Your task to perform on an android device: Open wifi settings Image 0: 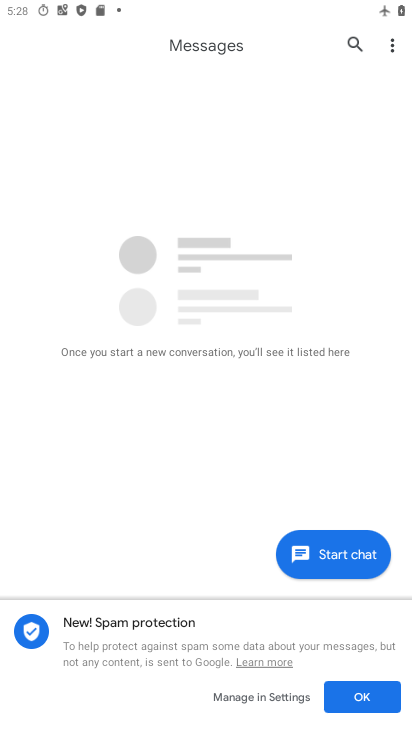
Step 0: press home button
Your task to perform on an android device: Open wifi settings Image 1: 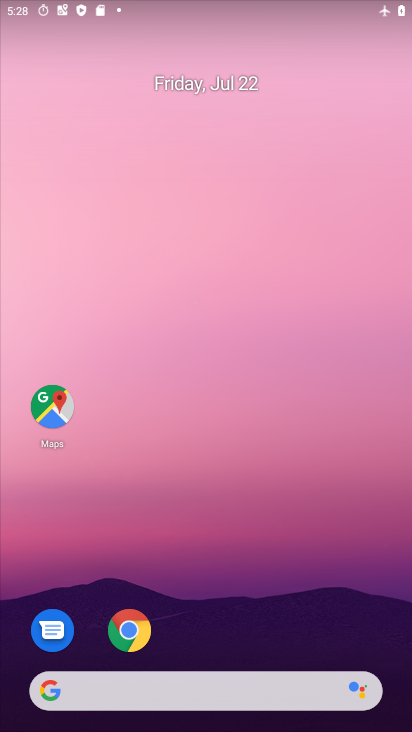
Step 1: drag from (110, 696) to (150, 28)
Your task to perform on an android device: Open wifi settings Image 2: 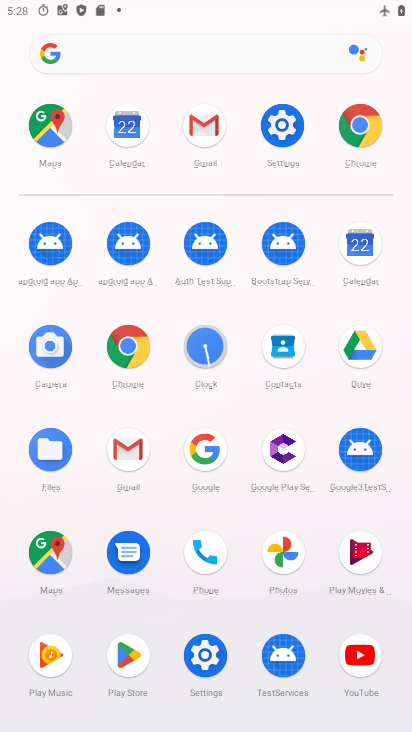
Step 2: click (274, 129)
Your task to perform on an android device: Open wifi settings Image 3: 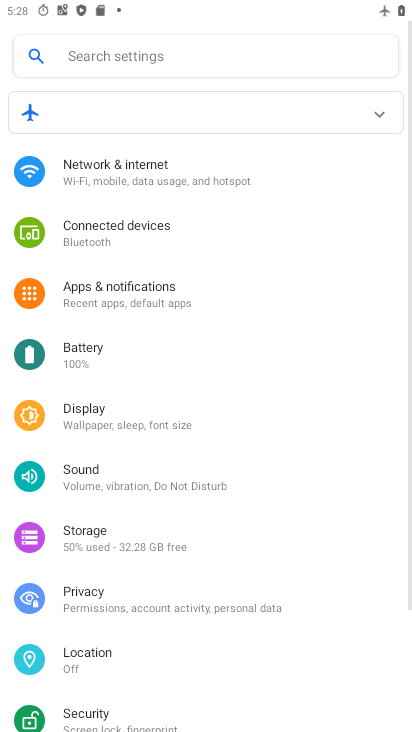
Step 3: click (136, 175)
Your task to perform on an android device: Open wifi settings Image 4: 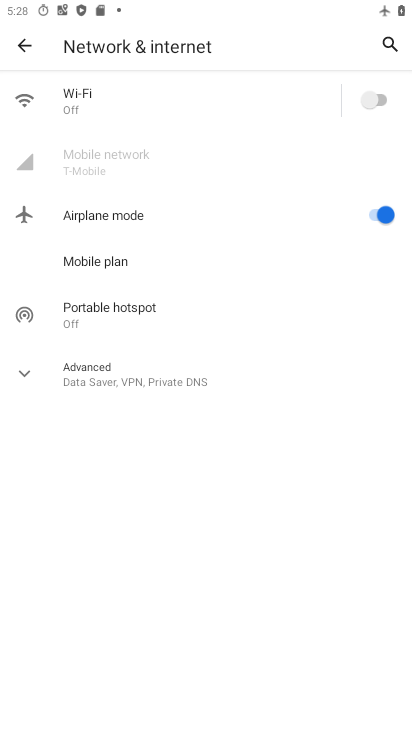
Step 4: task complete